Your task to perform on an android device: Open calendar and show me the fourth week of next month Image 0: 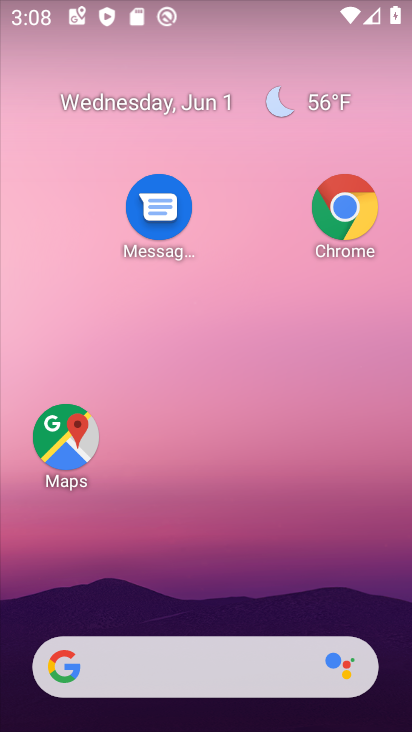
Step 0: drag from (230, 583) to (238, 1)
Your task to perform on an android device: Open calendar and show me the fourth week of next month Image 1: 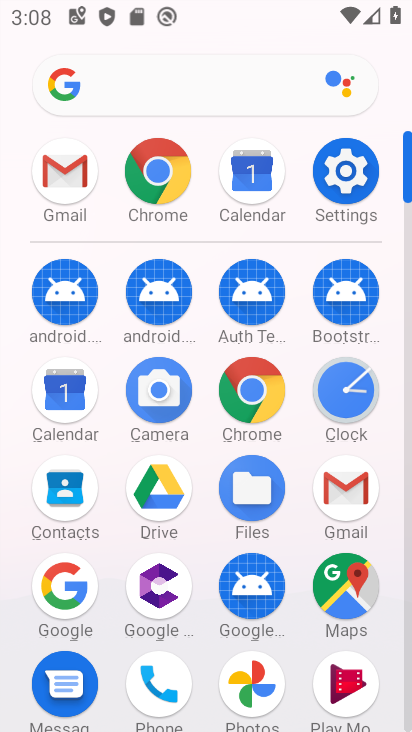
Step 1: click (72, 382)
Your task to perform on an android device: Open calendar and show me the fourth week of next month Image 2: 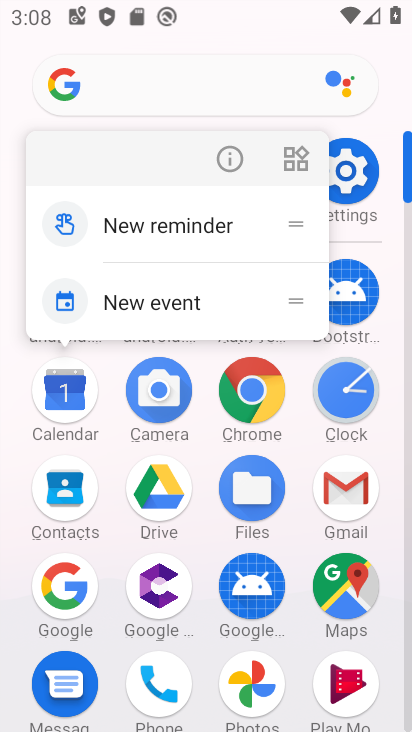
Step 2: click (235, 143)
Your task to perform on an android device: Open calendar and show me the fourth week of next month Image 3: 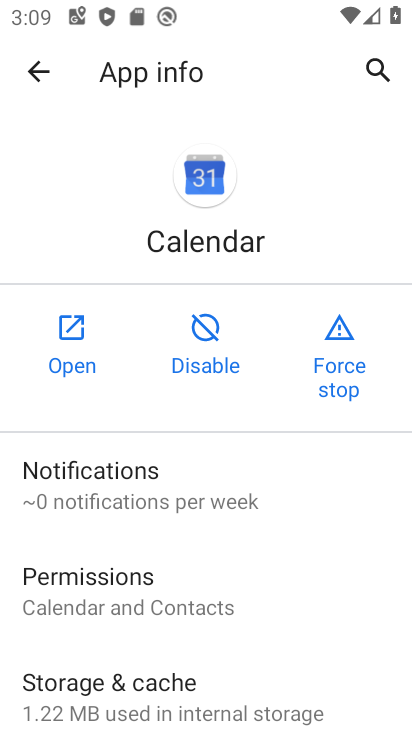
Step 3: click (79, 336)
Your task to perform on an android device: Open calendar and show me the fourth week of next month Image 4: 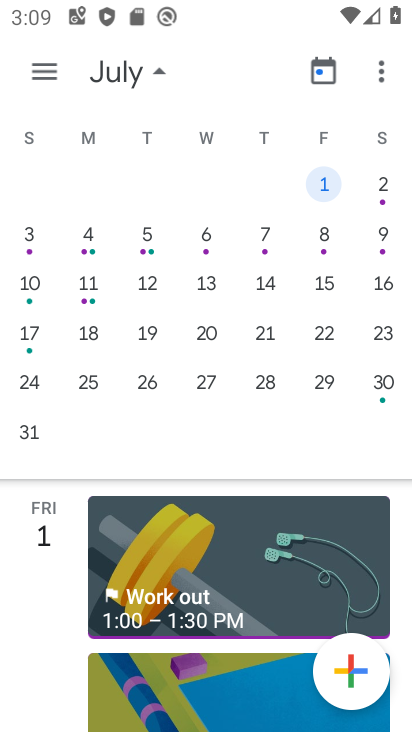
Step 4: click (317, 282)
Your task to perform on an android device: Open calendar and show me the fourth week of next month Image 5: 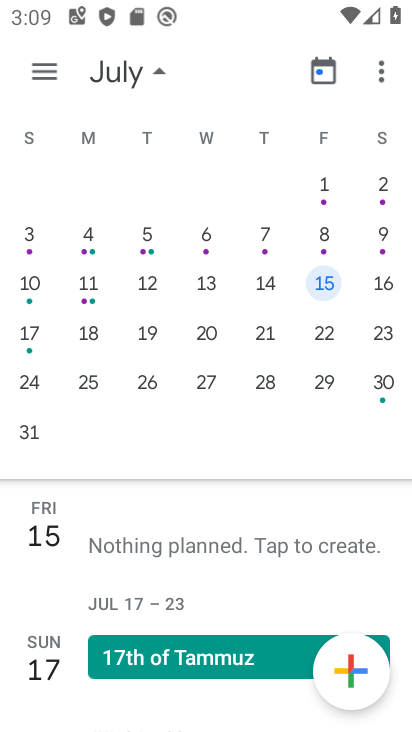
Step 5: click (317, 349)
Your task to perform on an android device: Open calendar and show me the fourth week of next month Image 6: 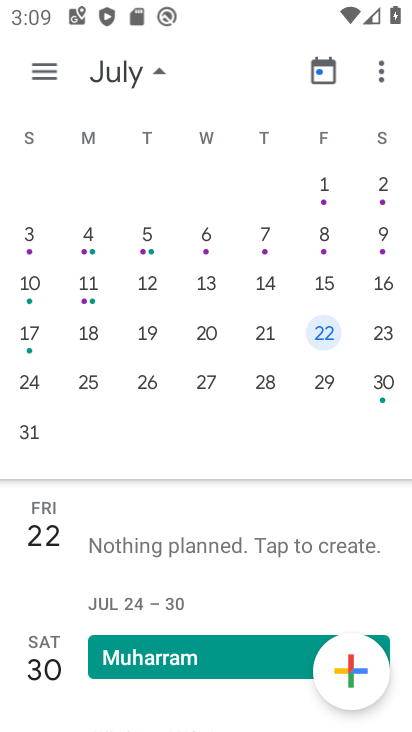
Step 6: task complete